Your task to perform on an android device: Open Android settings Image 0: 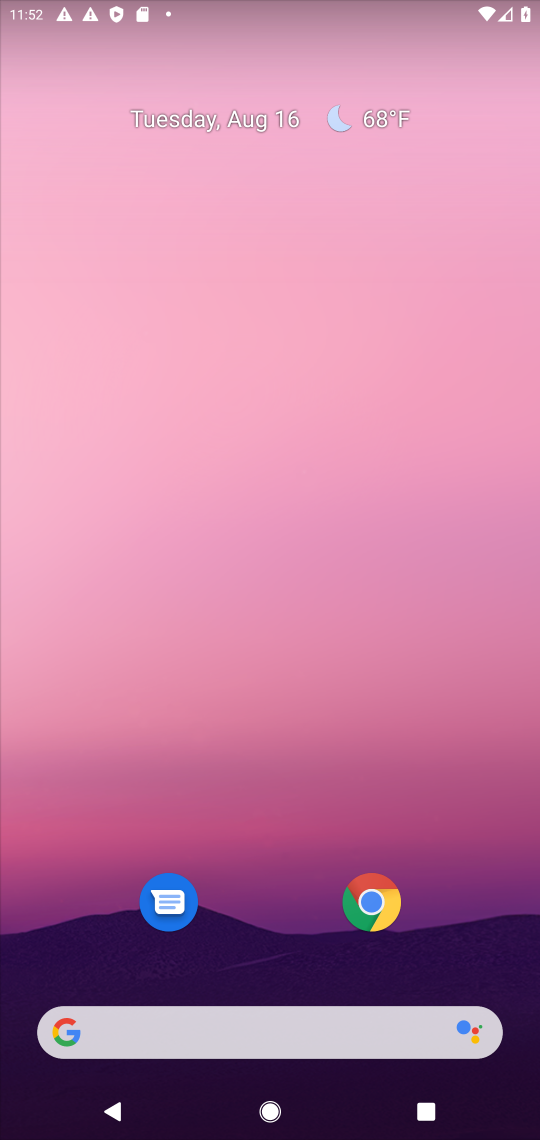
Step 0: drag from (278, 936) to (348, 267)
Your task to perform on an android device: Open Android settings Image 1: 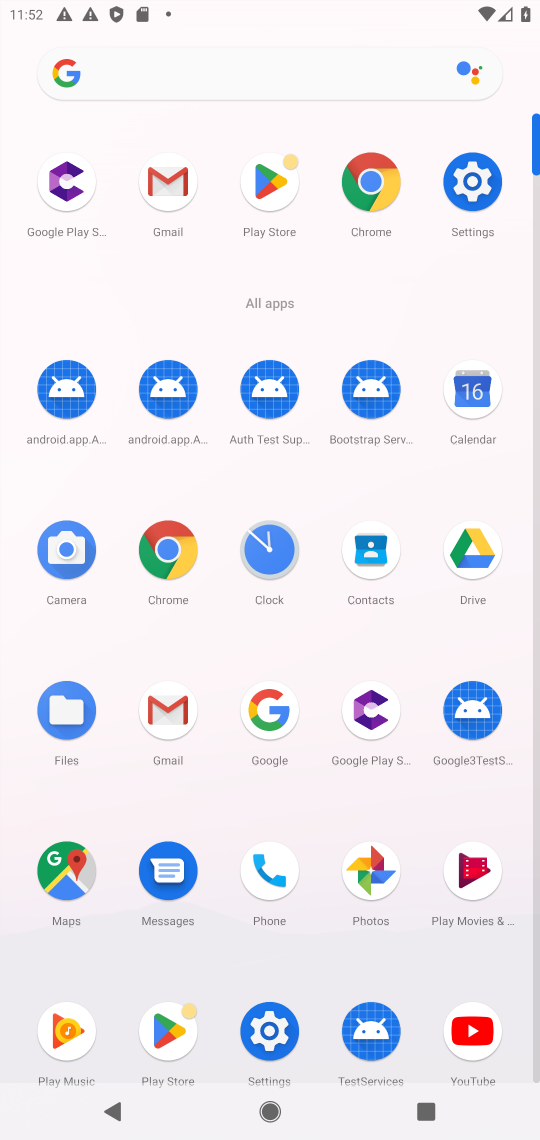
Step 1: click (272, 1041)
Your task to perform on an android device: Open Android settings Image 2: 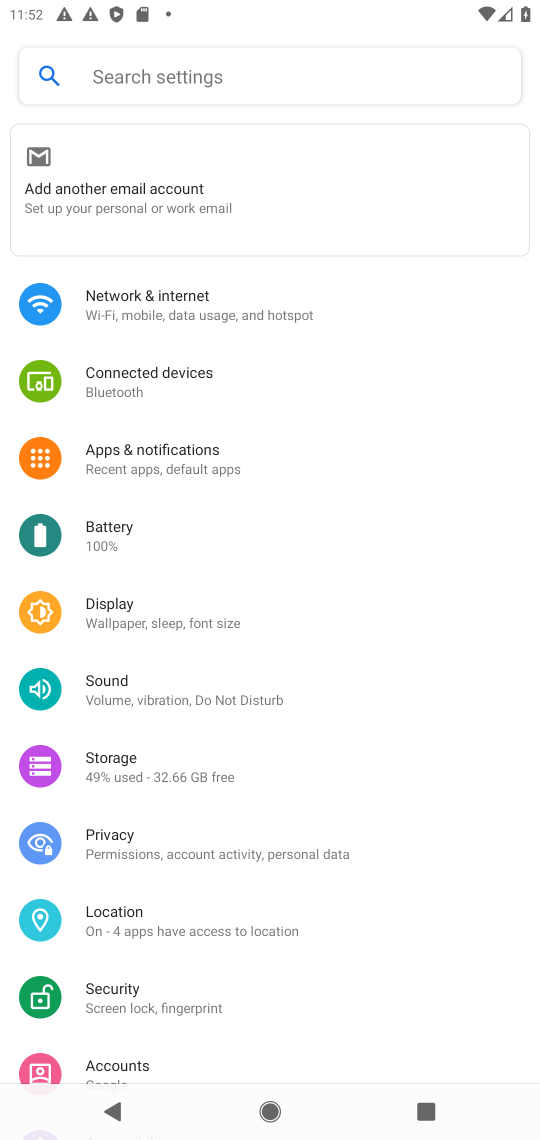
Step 2: drag from (196, 941) to (232, 497)
Your task to perform on an android device: Open Android settings Image 3: 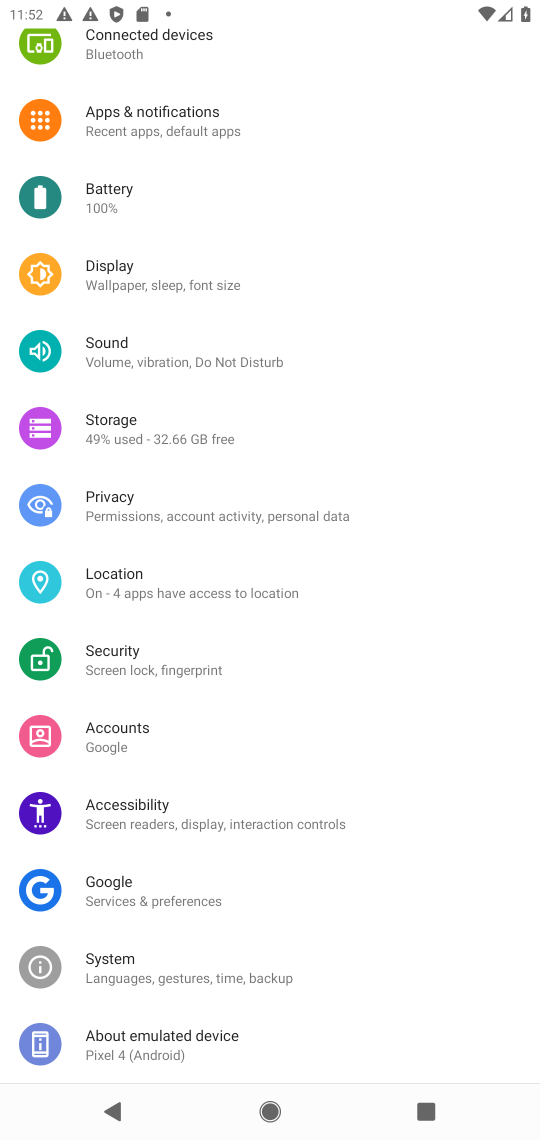
Step 3: drag from (142, 964) to (179, 381)
Your task to perform on an android device: Open Android settings Image 4: 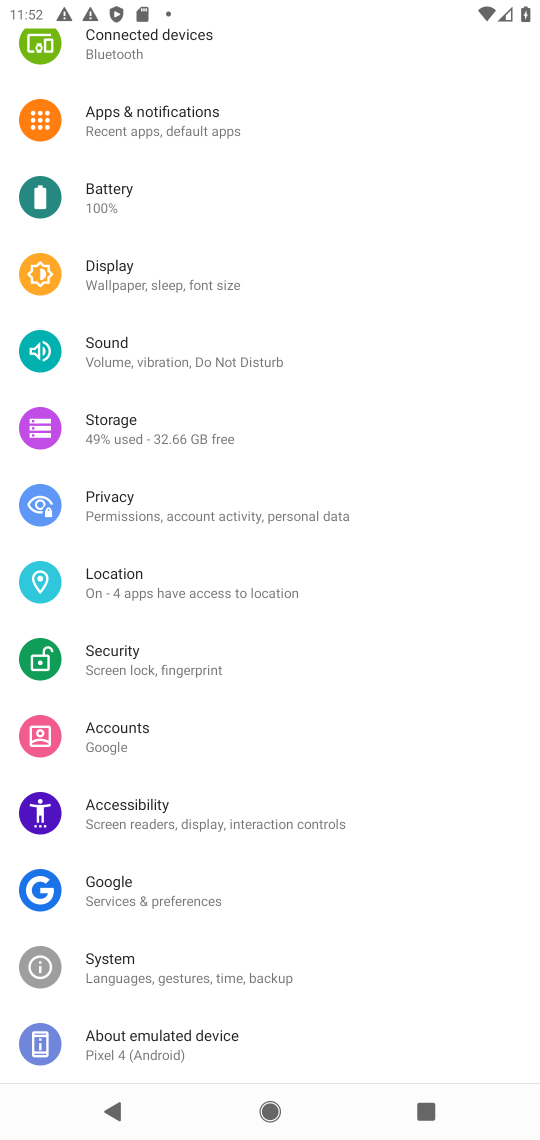
Step 4: drag from (153, 976) to (185, 777)
Your task to perform on an android device: Open Android settings Image 5: 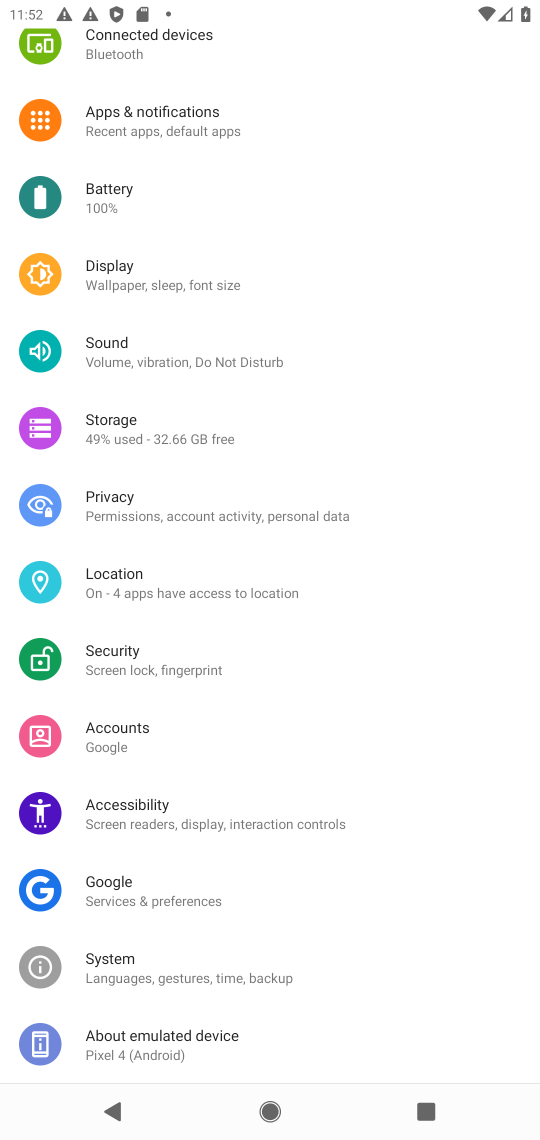
Step 5: click (154, 1047)
Your task to perform on an android device: Open Android settings Image 6: 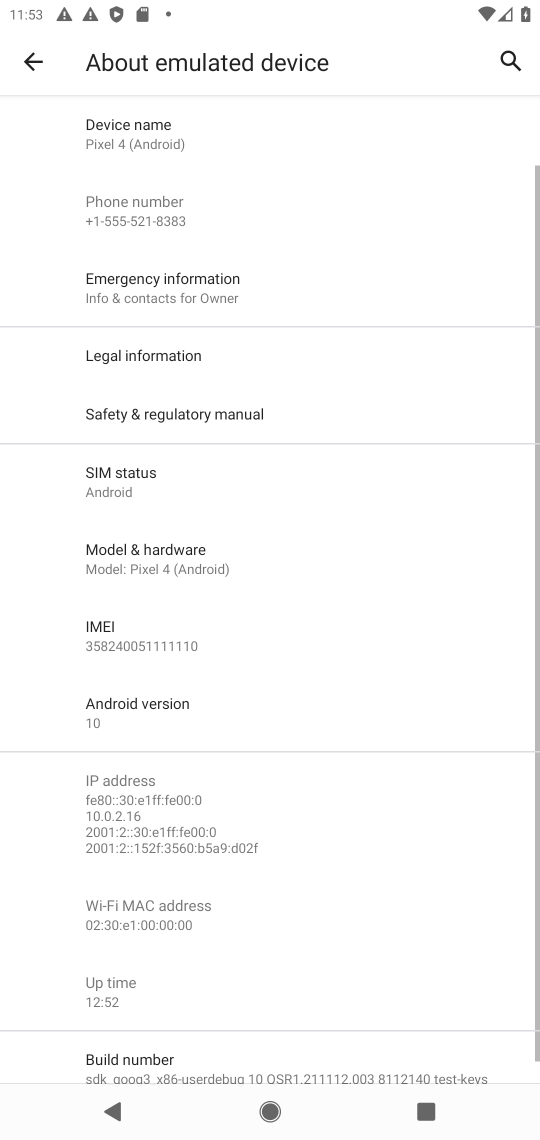
Step 6: click (192, 719)
Your task to perform on an android device: Open Android settings Image 7: 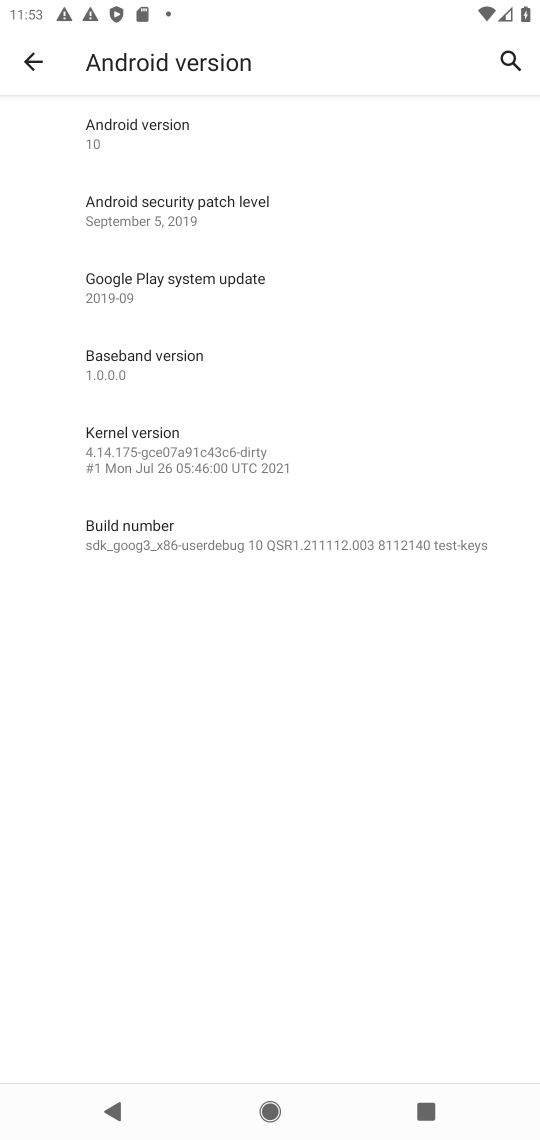
Step 7: task complete